Your task to perform on an android device: change your default location settings in chrome Image 0: 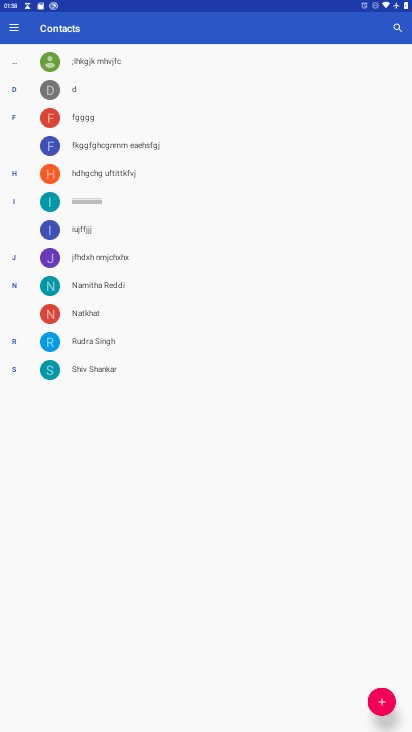
Step 0: press home button
Your task to perform on an android device: change your default location settings in chrome Image 1: 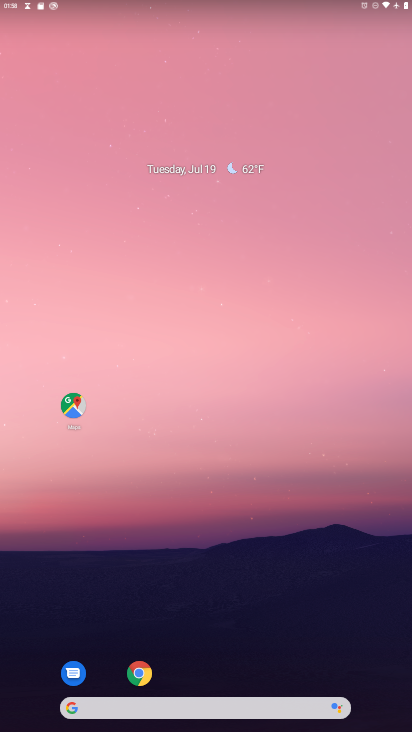
Step 1: drag from (236, 622) to (310, 117)
Your task to perform on an android device: change your default location settings in chrome Image 2: 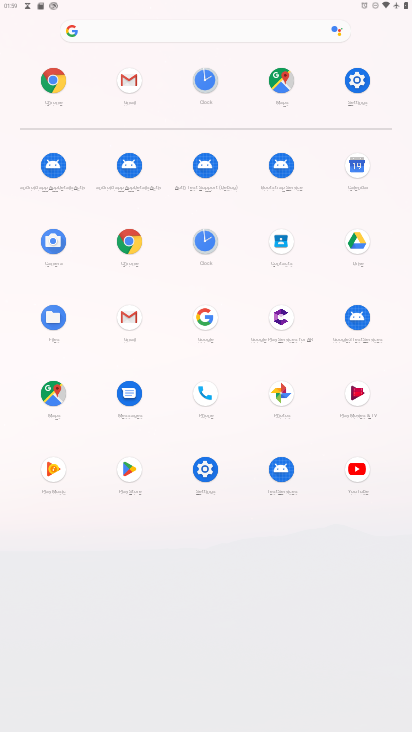
Step 2: click (125, 244)
Your task to perform on an android device: change your default location settings in chrome Image 3: 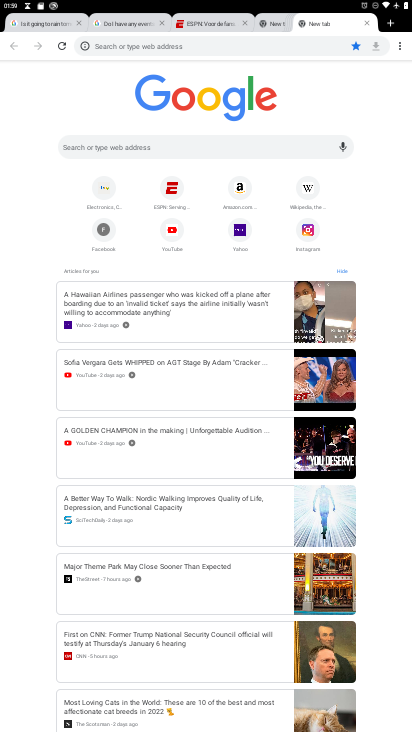
Step 3: click (404, 42)
Your task to perform on an android device: change your default location settings in chrome Image 4: 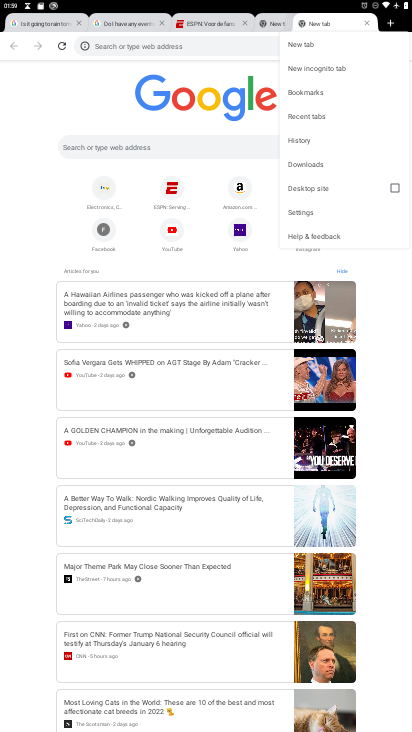
Step 4: click (318, 203)
Your task to perform on an android device: change your default location settings in chrome Image 5: 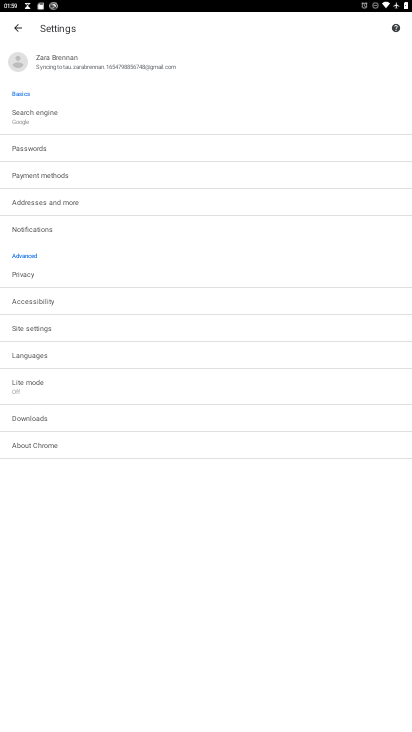
Step 5: click (66, 331)
Your task to perform on an android device: change your default location settings in chrome Image 6: 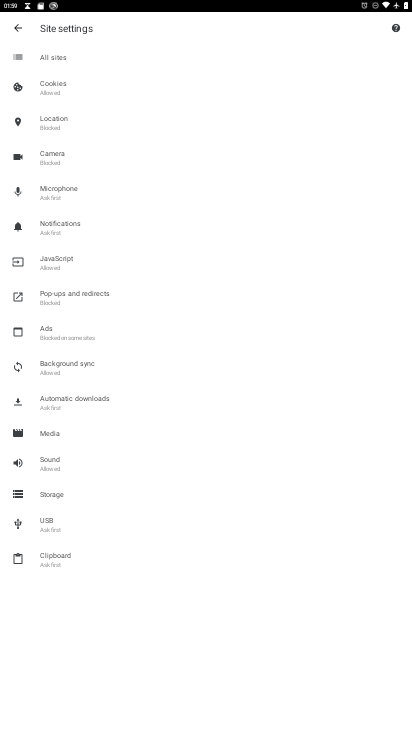
Step 6: click (51, 116)
Your task to perform on an android device: change your default location settings in chrome Image 7: 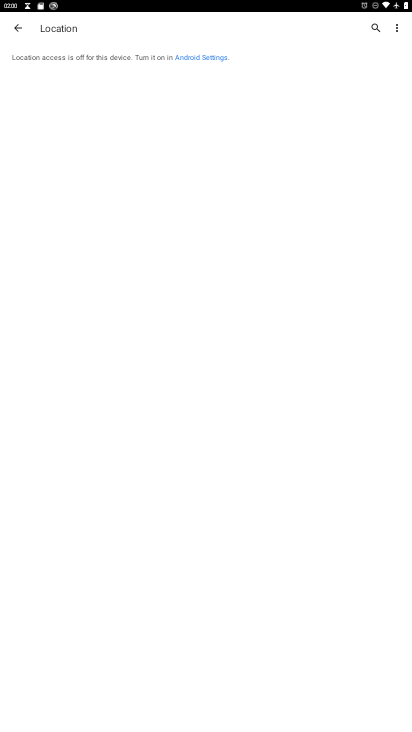
Step 7: task complete